Your task to perform on an android device: remove spam from my inbox in the gmail app Image 0: 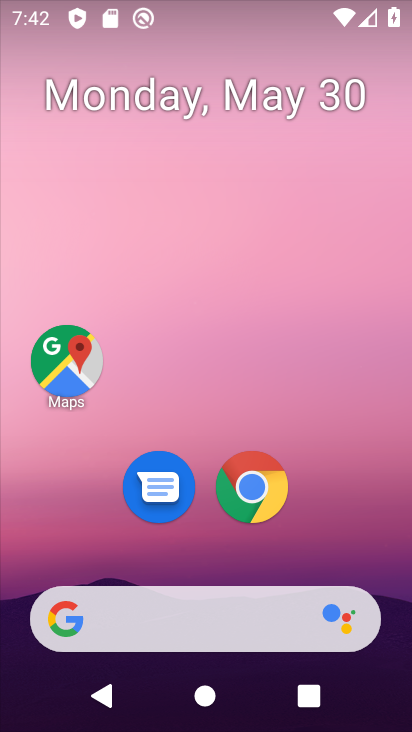
Step 0: drag from (228, 559) to (223, 241)
Your task to perform on an android device: remove spam from my inbox in the gmail app Image 1: 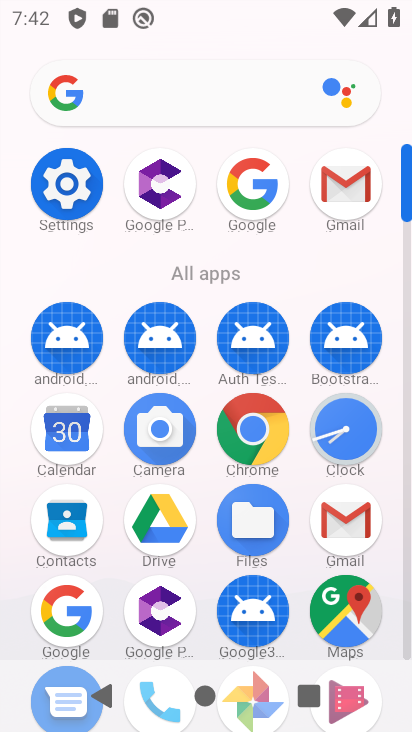
Step 1: click (339, 503)
Your task to perform on an android device: remove spam from my inbox in the gmail app Image 2: 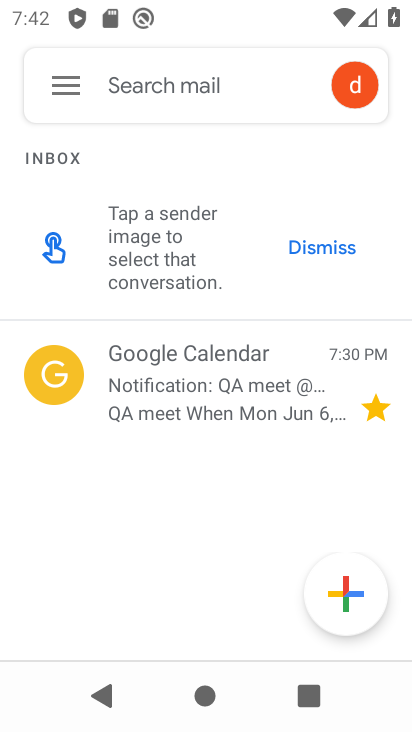
Step 2: click (64, 84)
Your task to perform on an android device: remove spam from my inbox in the gmail app Image 3: 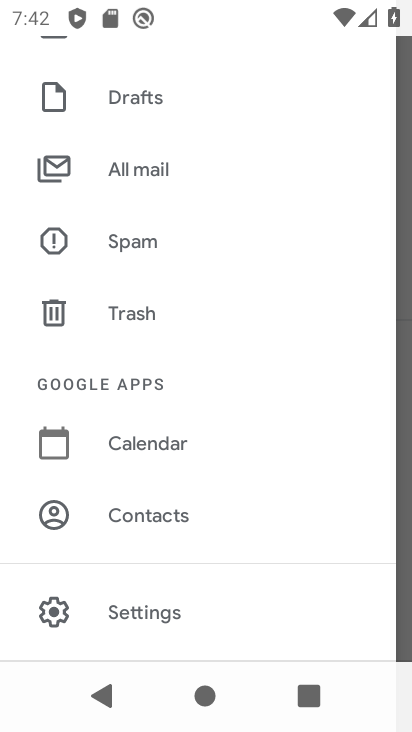
Step 3: drag from (140, 172) to (163, 338)
Your task to perform on an android device: remove spam from my inbox in the gmail app Image 4: 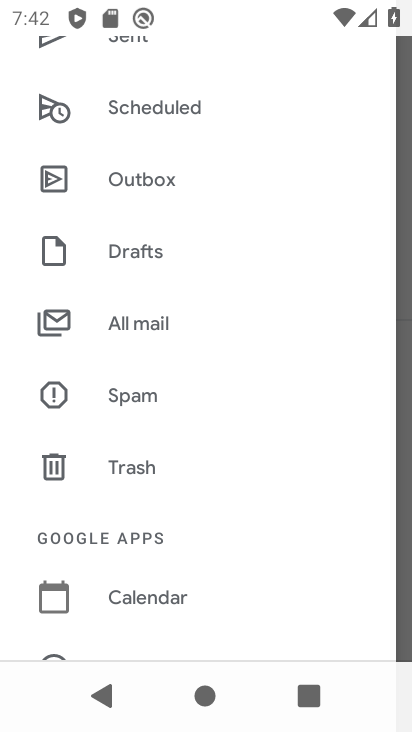
Step 4: click (165, 398)
Your task to perform on an android device: remove spam from my inbox in the gmail app Image 5: 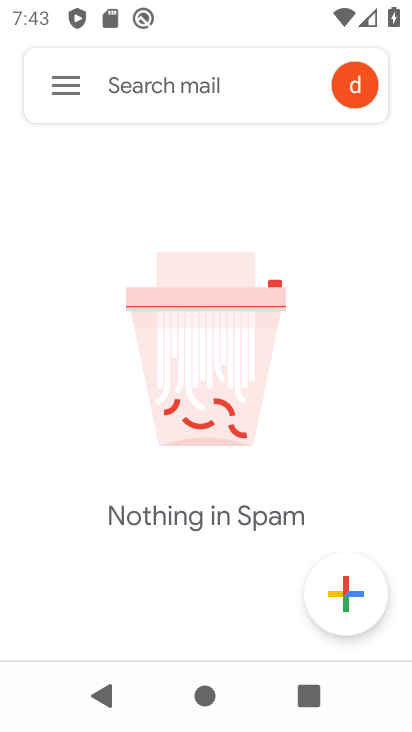
Step 5: task complete